Your task to perform on an android device: Toggle the flashlight Image 0: 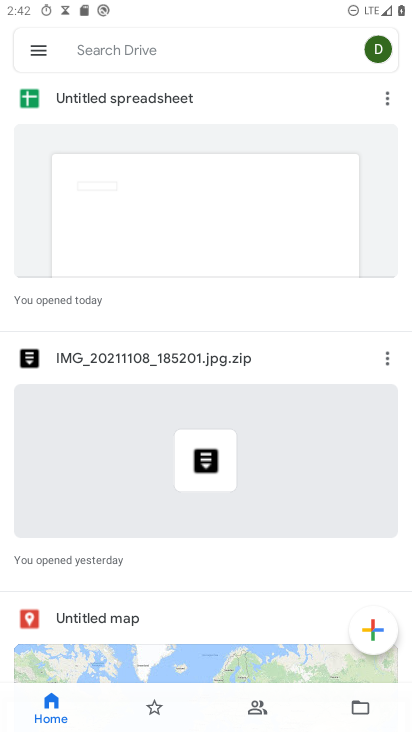
Step 0: press home button
Your task to perform on an android device: Toggle the flashlight Image 1: 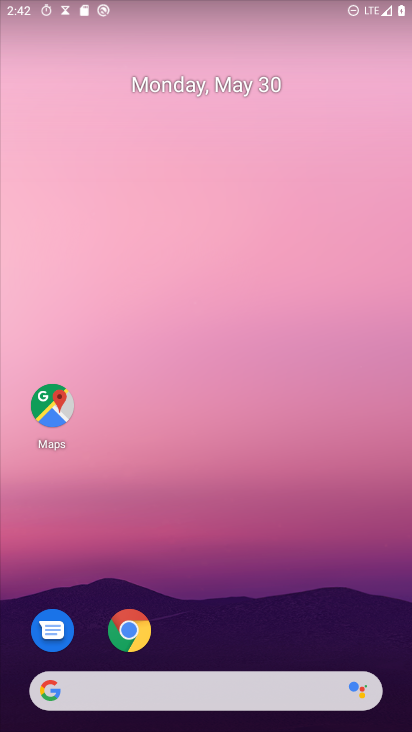
Step 1: drag from (260, 702) to (149, 101)
Your task to perform on an android device: Toggle the flashlight Image 2: 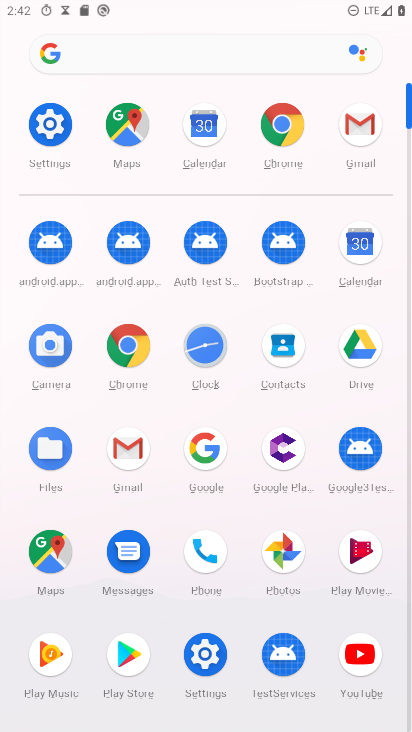
Step 2: click (44, 123)
Your task to perform on an android device: Toggle the flashlight Image 3: 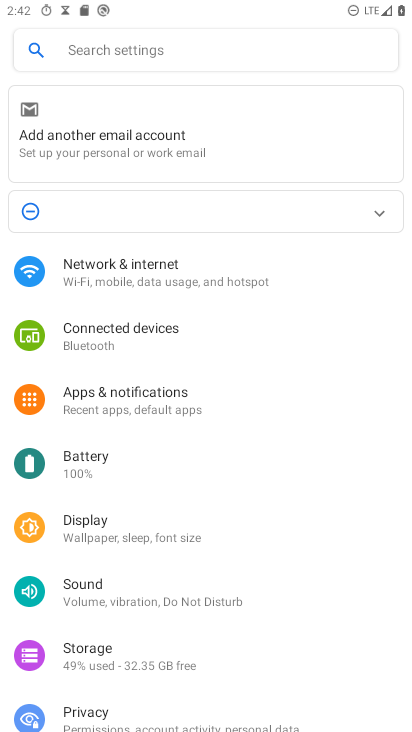
Step 3: click (127, 50)
Your task to perform on an android device: Toggle the flashlight Image 4: 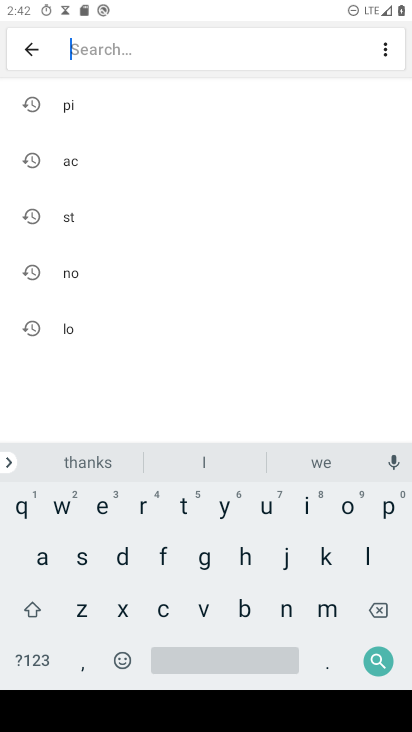
Step 4: click (157, 553)
Your task to perform on an android device: Toggle the flashlight Image 5: 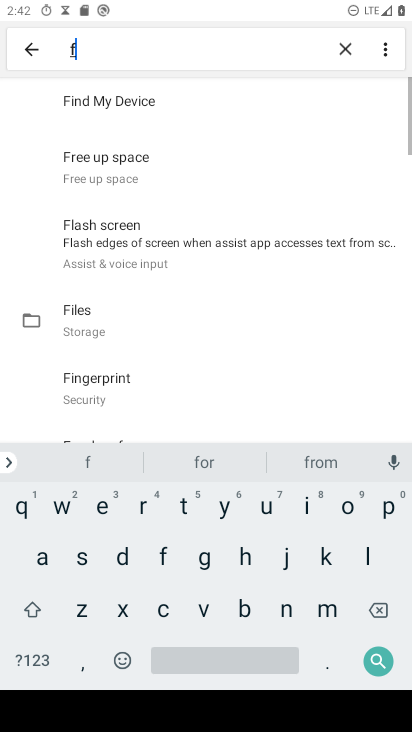
Step 5: click (368, 552)
Your task to perform on an android device: Toggle the flashlight Image 6: 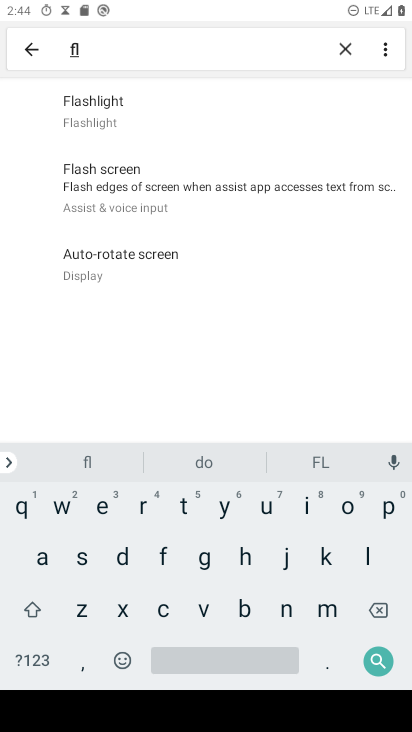
Step 6: task complete